Your task to perform on an android device: Open the phone app and click the voicemail tab. Image 0: 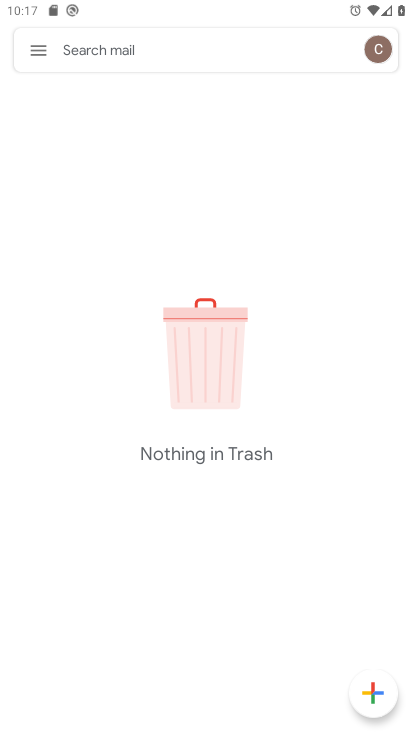
Step 0: drag from (185, 623) to (258, 24)
Your task to perform on an android device: Open the phone app and click the voicemail tab. Image 1: 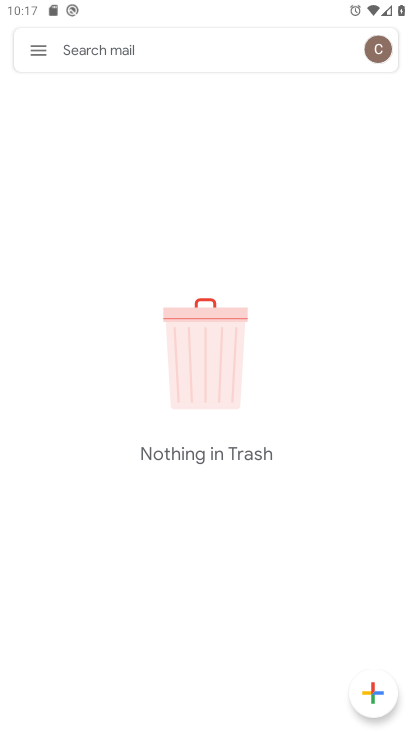
Step 1: press home button
Your task to perform on an android device: Open the phone app and click the voicemail tab. Image 2: 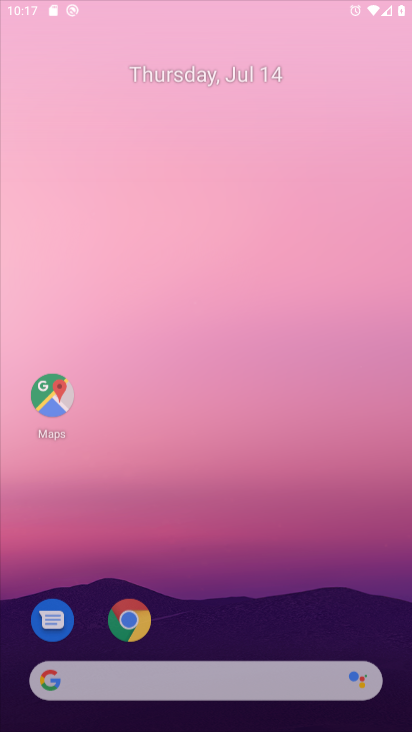
Step 2: drag from (166, 641) to (248, 84)
Your task to perform on an android device: Open the phone app and click the voicemail tab. Image 3: 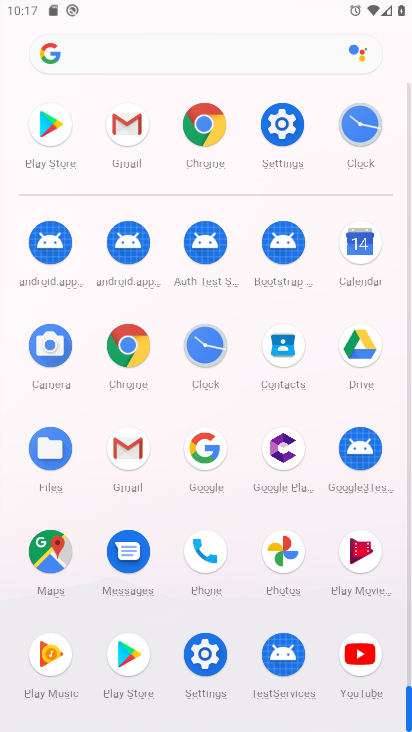
Step 3: click (212, 546)
Your task to perform on an android device: Open the phone app and click the voicemail tab. Image 4: 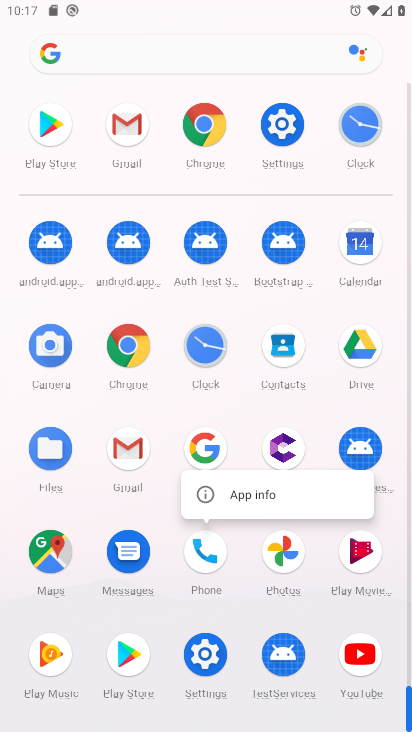
Step 4: click (227, 499)
Your task to perform on an android device: Open the phone app and click the voicemail tab. Image 5: 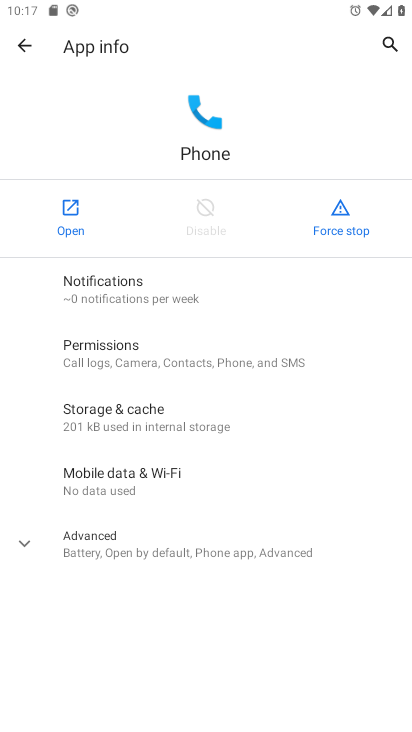
Step 5: click (69, 211)
Your task to perform on an android device: Open the phone app and click the voicemail tab. Image 6: 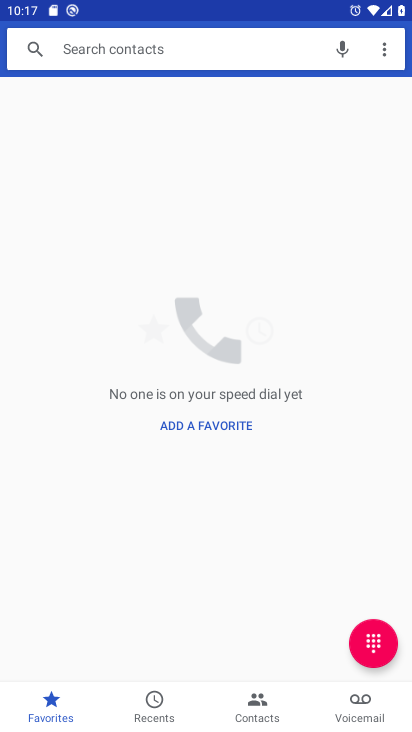
Step 6: click (351, 697)
Your task to perform on an android device: Open the phone app and click the voicemail tab. Image 7: 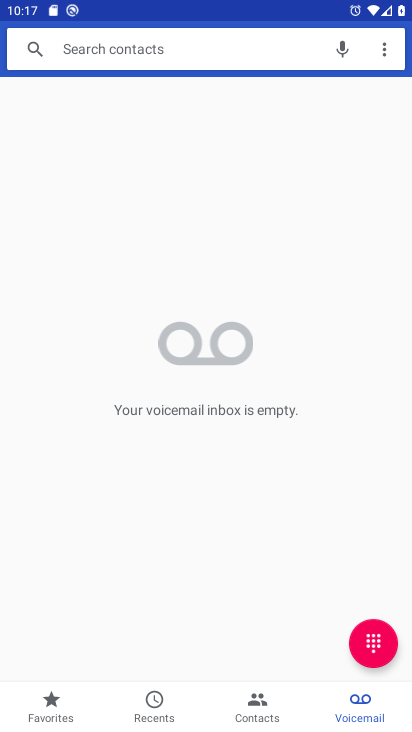
Step 7: drag from (243, 582) to (219, 292)
Your task to perform on an android device: Open the phone app and click the voicemail tab. Image 8: 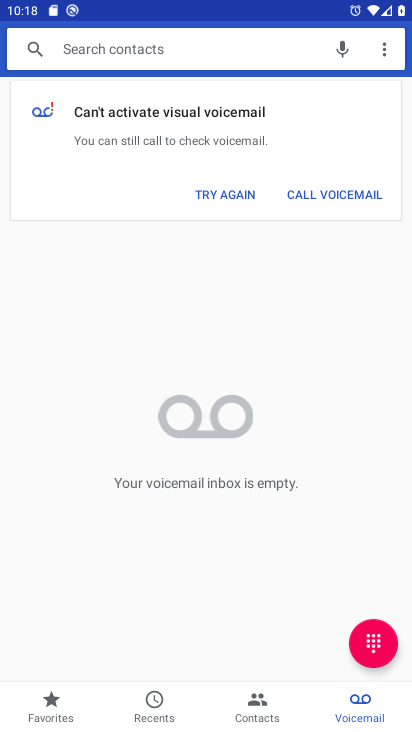
Step 8: click (254, 494)
Your task to perform on an android device: Open the phone app and click the voicemail tab. Image 9: 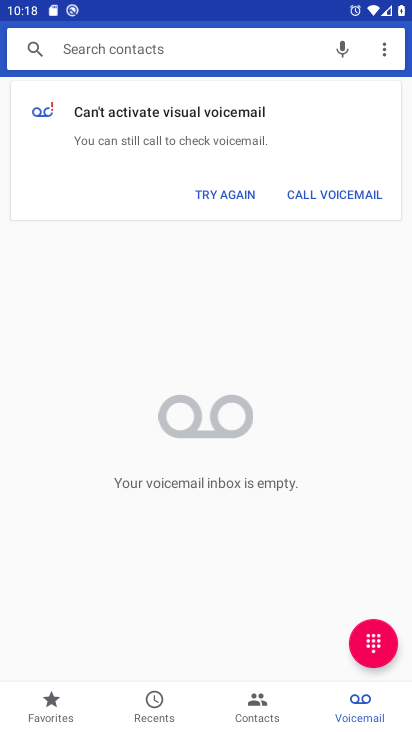
Step 9: task complete